Your task to perform on an android device: Open Youtube and go to "Your channel" Image 0: 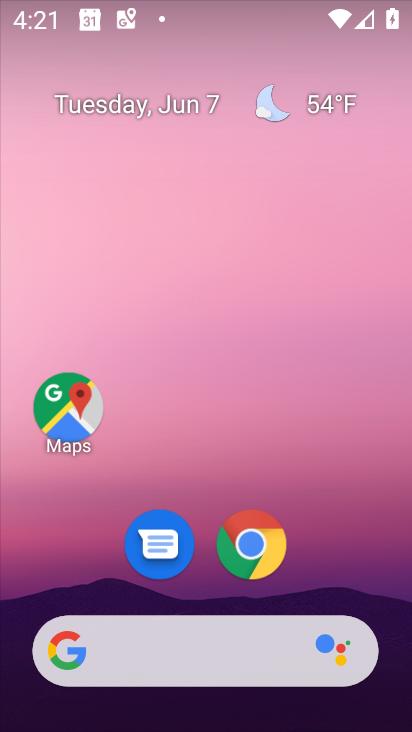
Step 0: drag from (344, 585) to (291, 11)
Your task to perform on an android device: Open Youtube and go to "Your channel" Image 1: 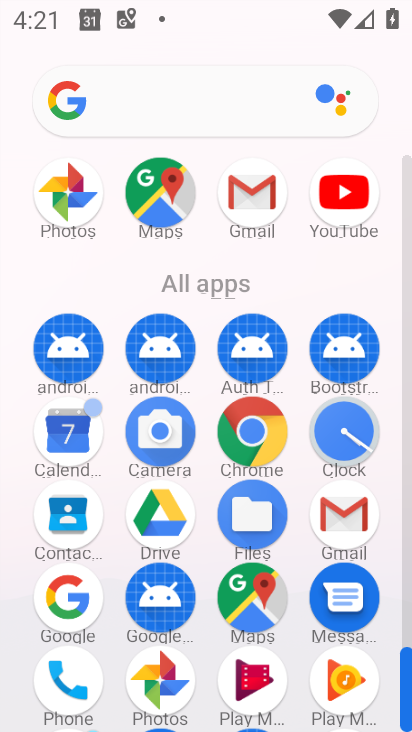
Step 1: click (337, 215)
Your task to perform on an android device: Open Youtube and go to "Your channel" Image 2: 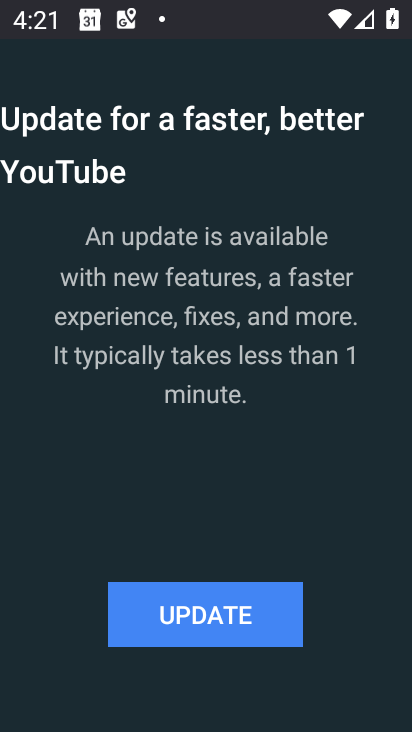
Step 2: click (220, 616)
Your task to perform on an android device: Open Youtube and go to "Your channel" Image 3: 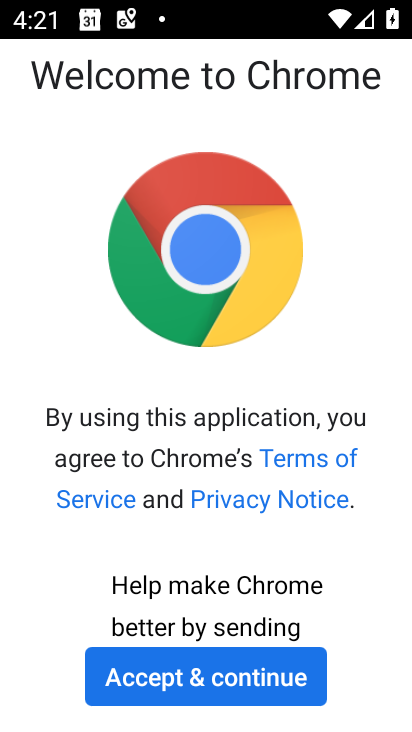
Step 3: click (257, 663)
Your task to perform on an android device: Open Youtube and go to "Your channel" Image 4: 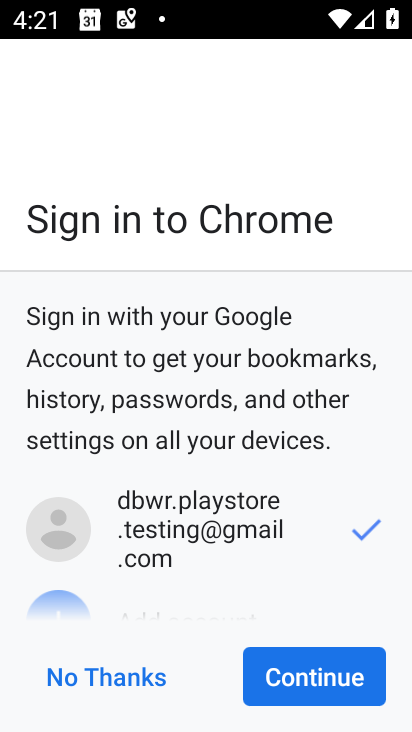
Step 4: click (306, 668)
Your task to perform on an android device: Open Youtube and go to "Your channel" Image 5: 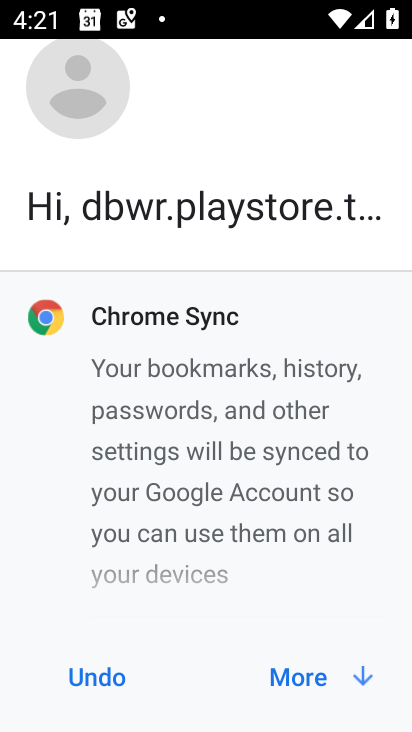
Step 5: click (306, 668)
Your task to perform on an android device: Open Youtube and go to "Your channel" Image 6: 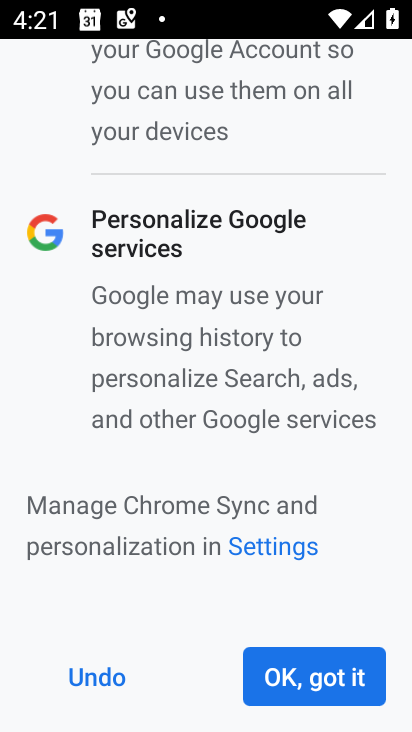
Step 6: click (306, 668)
Your task to perform on an android device: Open Youtube and go to "Your channel" Image 7: 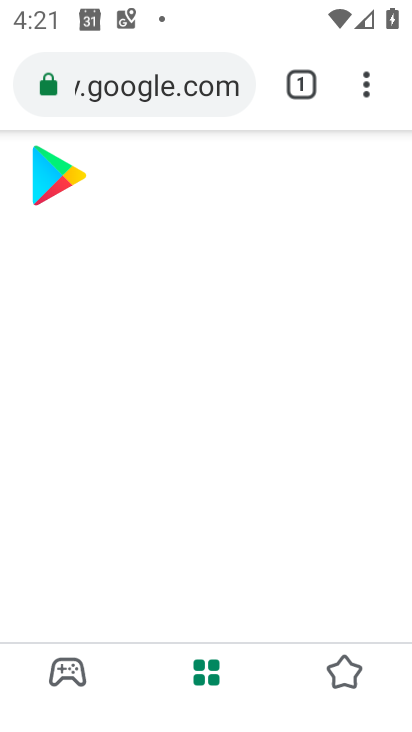
Step 7: task complete